Your task to perform on an android device: Is it going to rain tomorrow? Image 0: 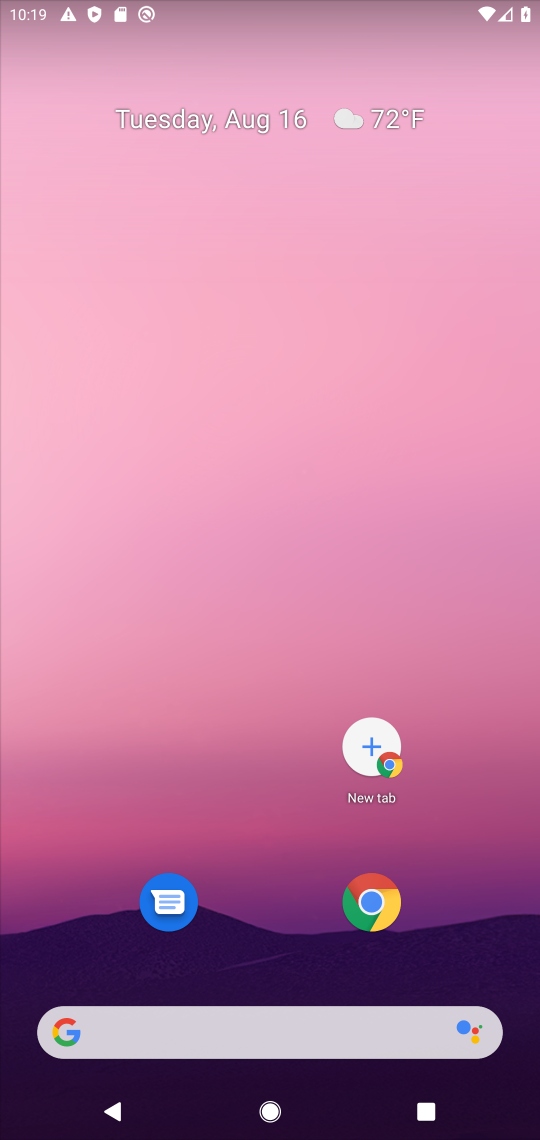
Step 0: drag from (302, 1006) to (185, 112)
Your task to perform on an android device: Is it going to rain tomorrow? Image 1: 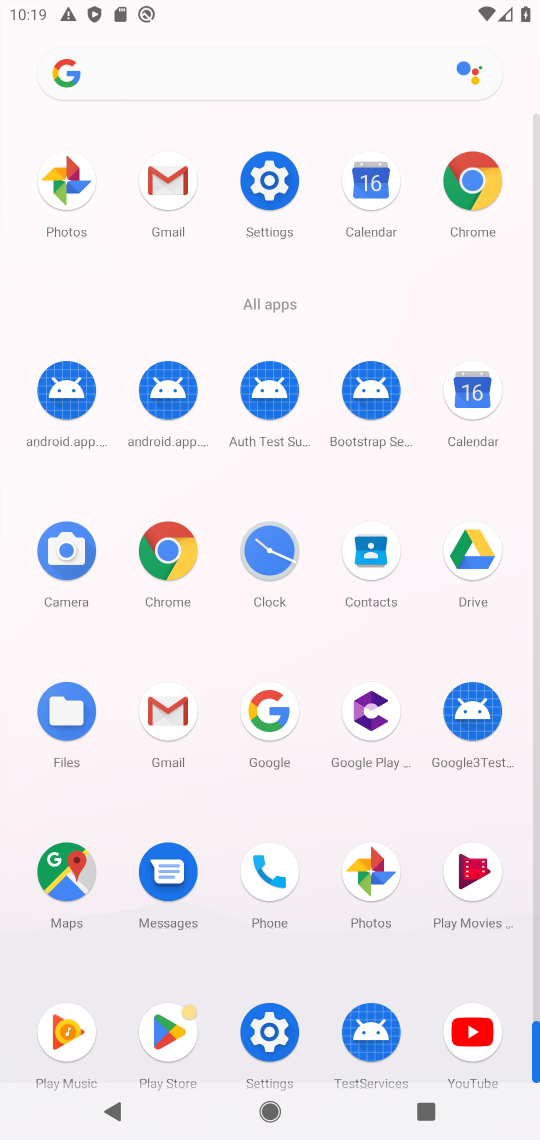
Step 1: click (267, 720)
Your task to perform on an android device: Is it going to rain tomorrow? Image 2: 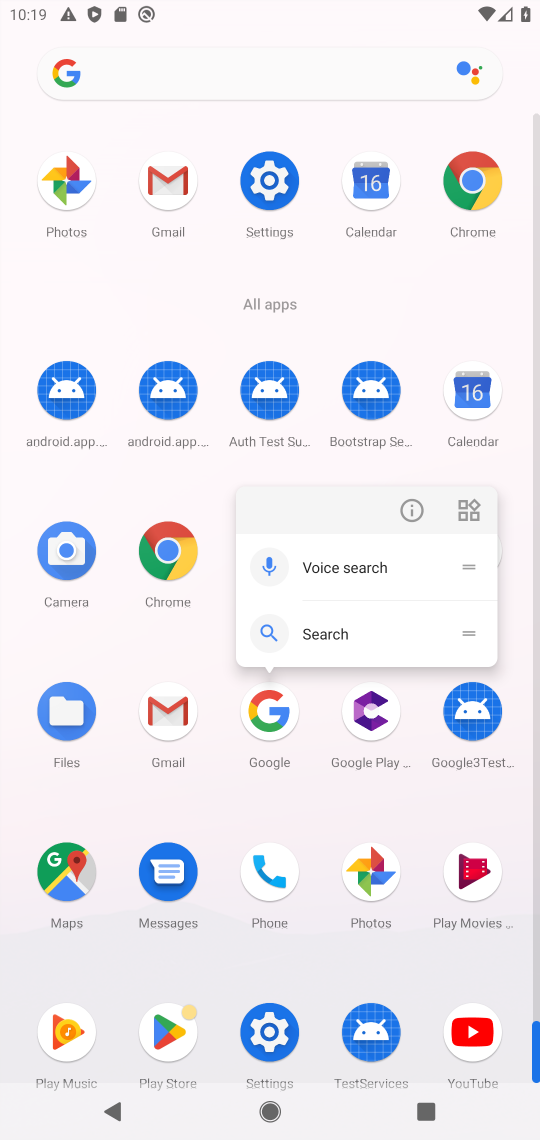
Step 2: click (264, 722)
Your task to perform on an android device: Is it going to rain tomorrow? Image 3: 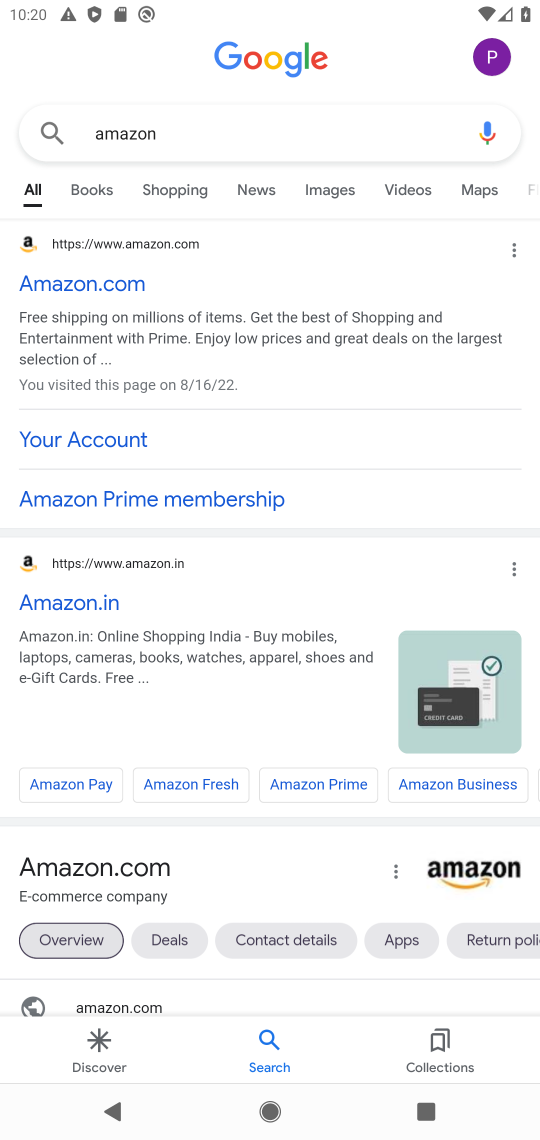
Step 3: click (204, 133)
Your task to perform on an android device: Is it going to rain tomorrow? Image 4: 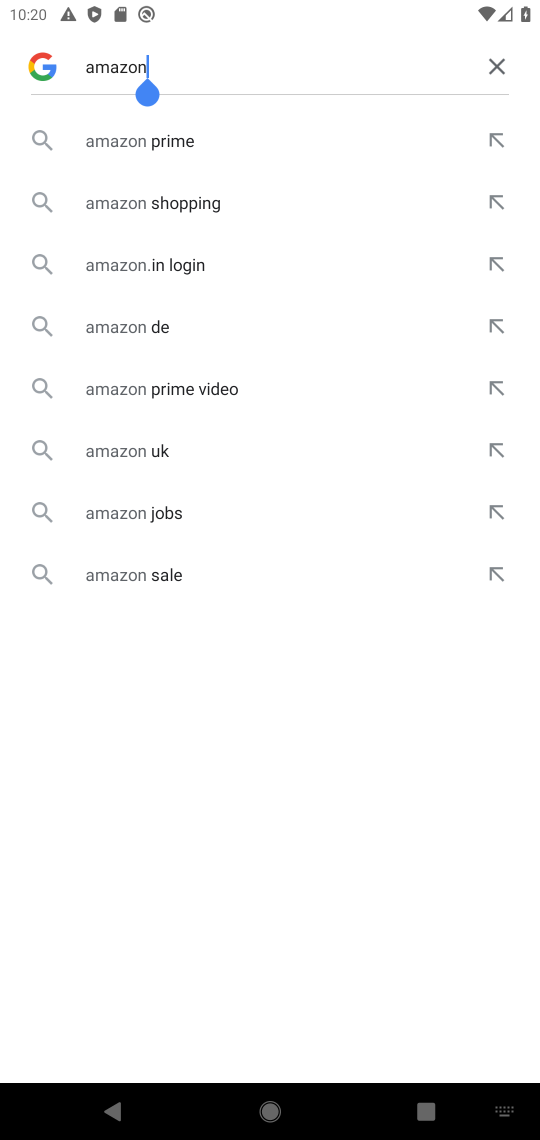
Step 4: click (498, 66)
Your task to perform on an android device: Is it going to rain tomorrow? Image 5: 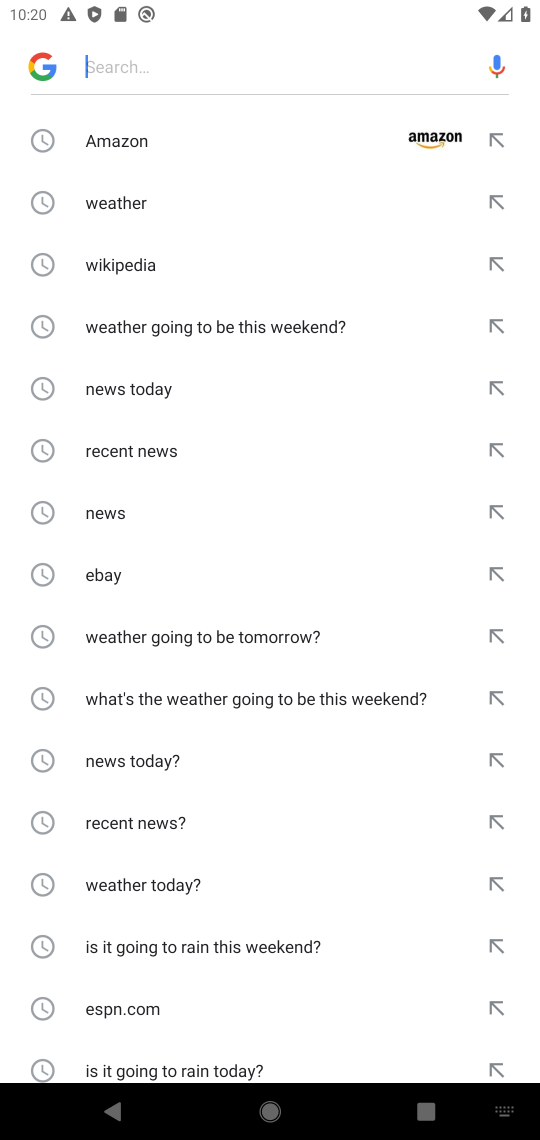
Step 5: drag from (242, 1002) to (203, 245)
Your task to perform on an android device: Is it going to rain tomorrow? Image 6: 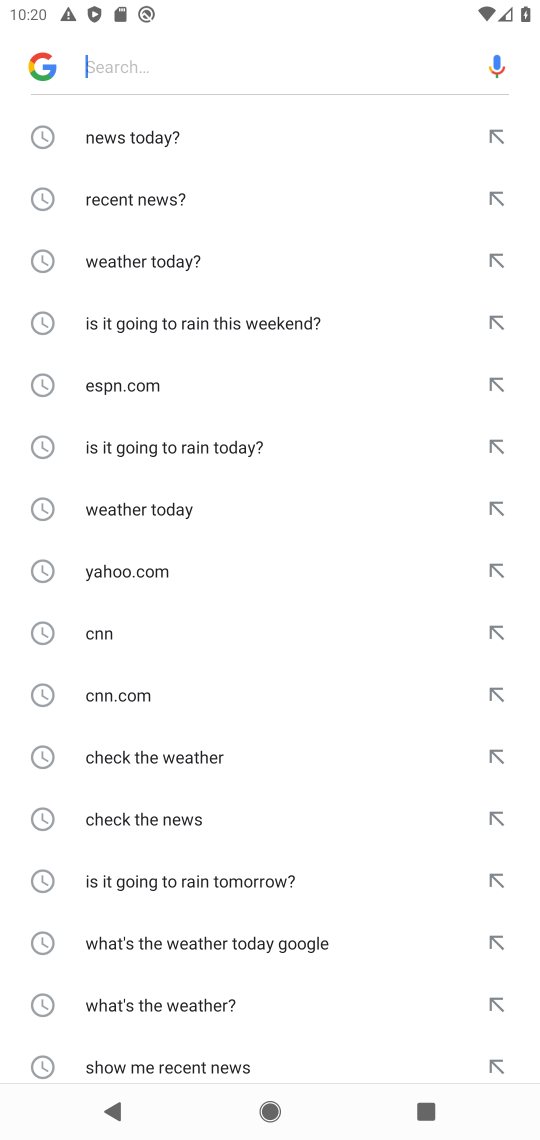
Step 6: click (119, 889)
Your task to perform on an android device: Is it going to rain tomorrow? Image 7: 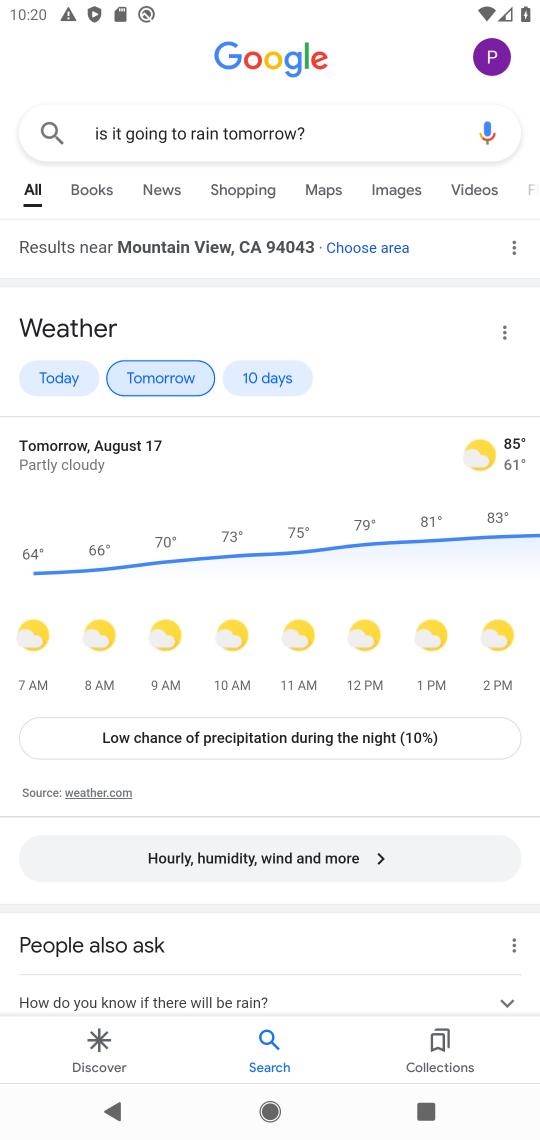
Step 7: task complete